Your task to perform on an android device: Go to Amazon Image 0: 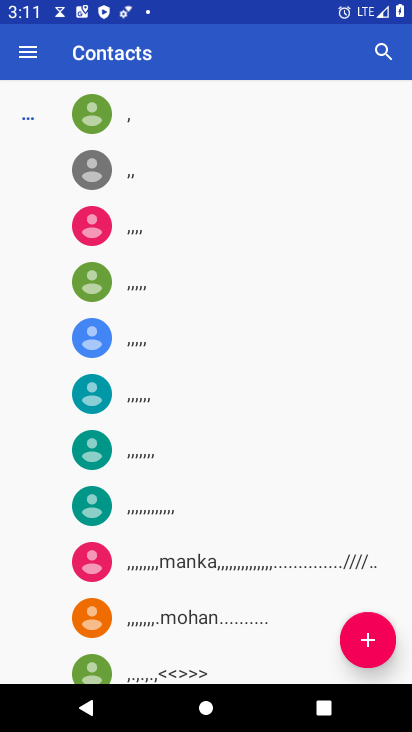
Step 0: press home button
Your task to perform on an android device: Go to Amazon Image 1: 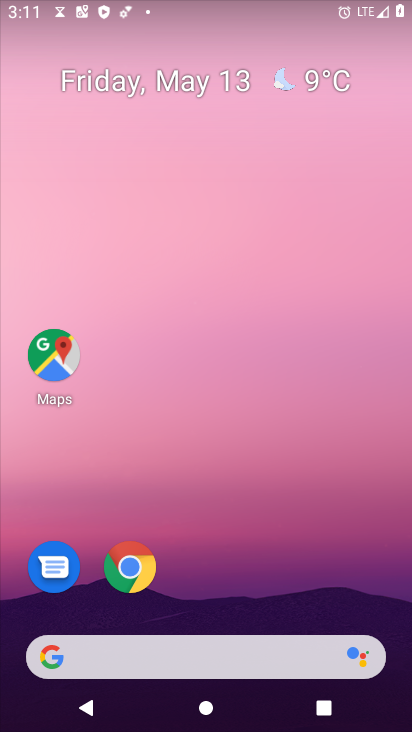
Step 1: click (144, 573)
Your task to perform on an android device: Go to Amazon Image 2: 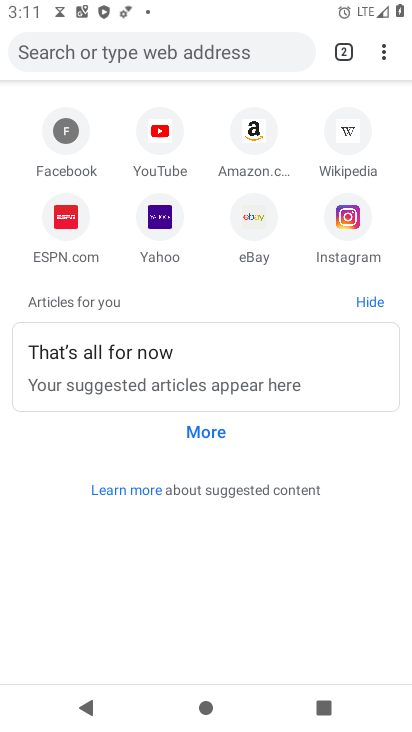
Step 2: click (253, 147)
Your task to perform on an android device: Go to Amazon Image 3: 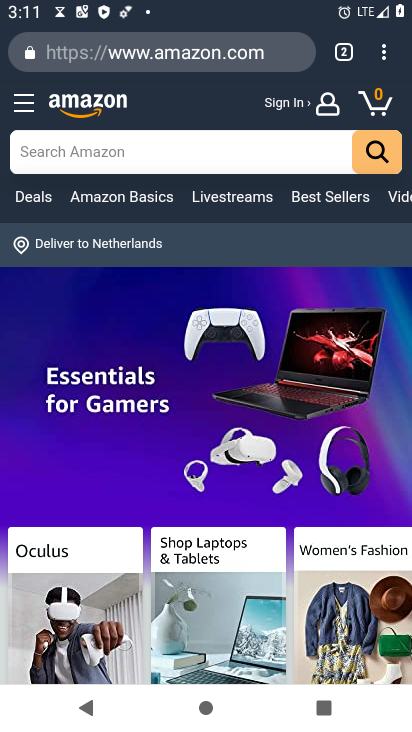
Step 3: task complete